Your task to perform on an android device: open the mobile data screen to see how much data has been used Image 0: 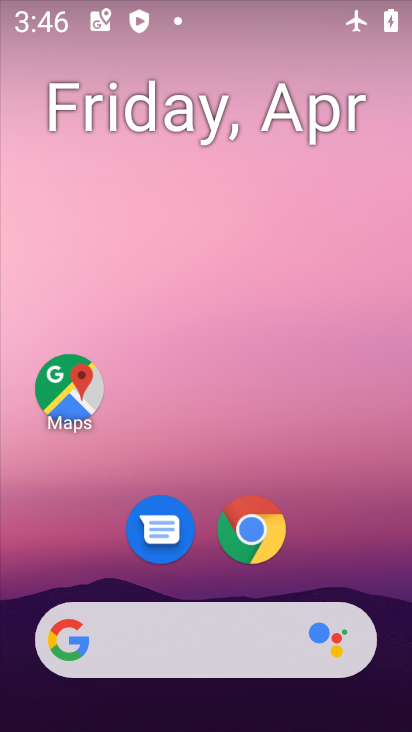
Step 0: drag from (331, 531) to (342, 43)
Your task to perform on an android device: open the mobile data screen to see how much data has been used Image 1: 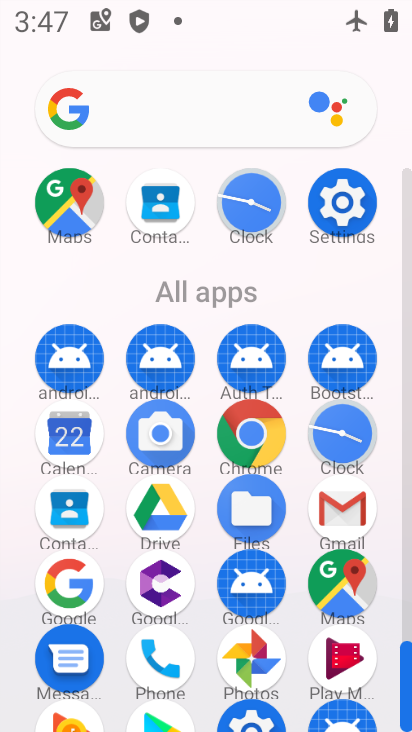
Step 1: click (344, 207)
Your task to perform on an android device: open the mobile data screen to see how much data has been used Image 2: 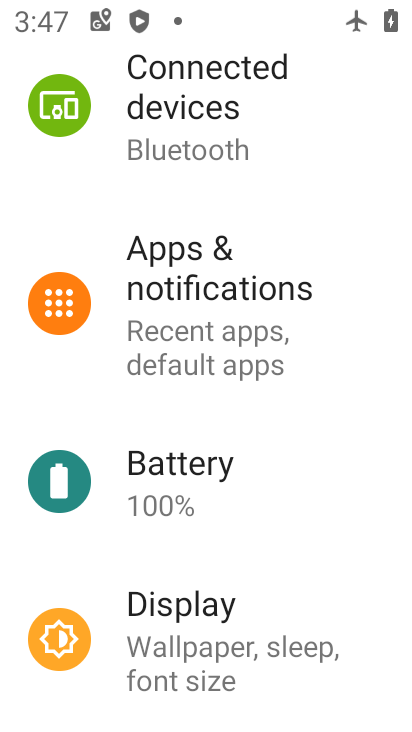
Step 2: drag from (268, 258) to (289, 635)
Your task to perform on an android device: open the mobile data screen to see how much data has been used Image 3: 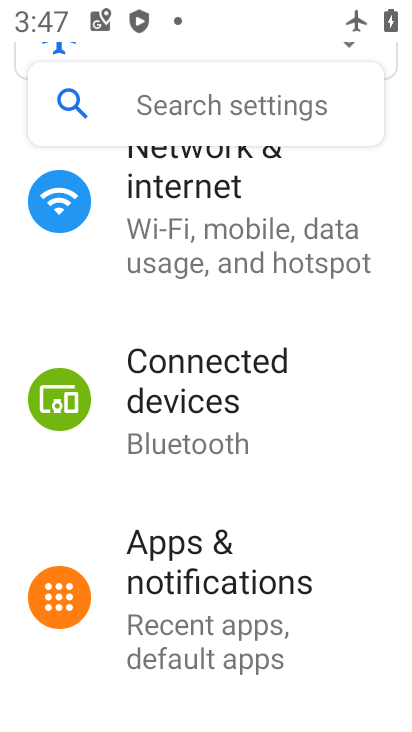
Step 3: drag from (257, 380) to (259, 683)
Your task to perform on an android device: open the mobile data screen to see how much data has been used Image 4: 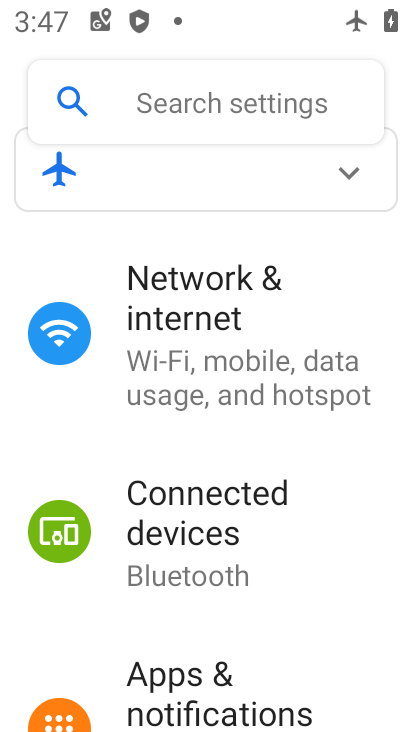
Step 4: click (214, 322)
Your task to perform on an android device: open the mobile data screen to see how much data has been used Image 5: 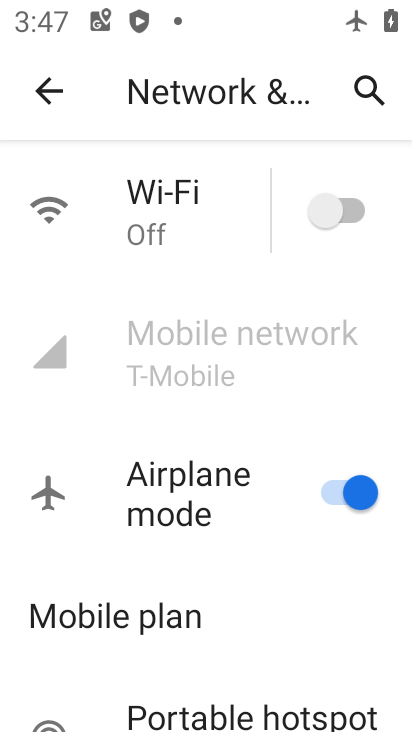
Step 5: task complete